Your task to perform on an android device: move a message to another label in the gmail app Image 0: 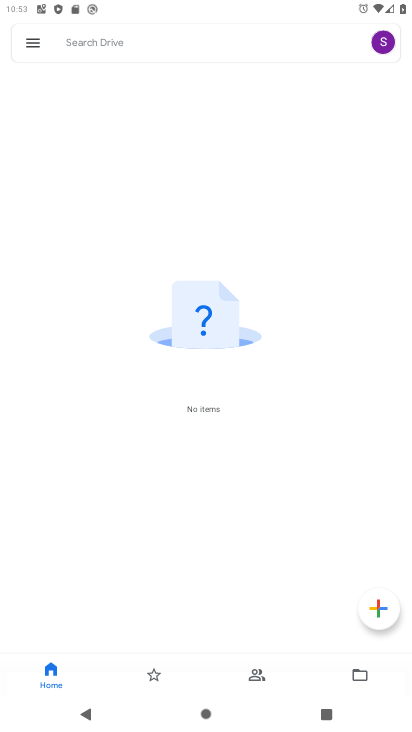
Step 0: press home button
Your task to perform on an android device: move a message to another label in the gmail app Image 1: 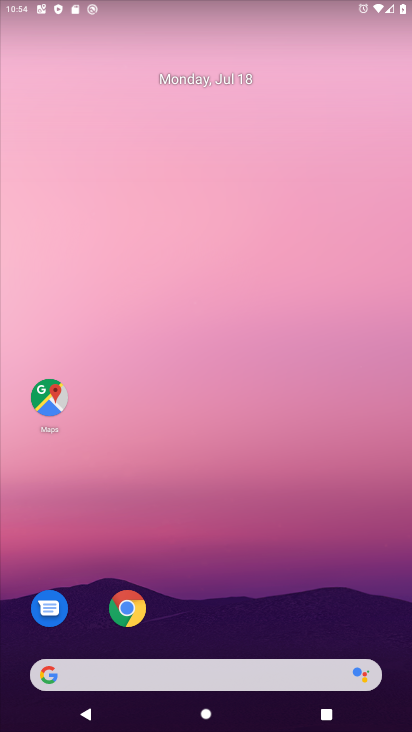
Step 1: drag from (225, 577) to (249, 128)
Your task to perform on an android device: move a message to another label in the gmail app Image 2: 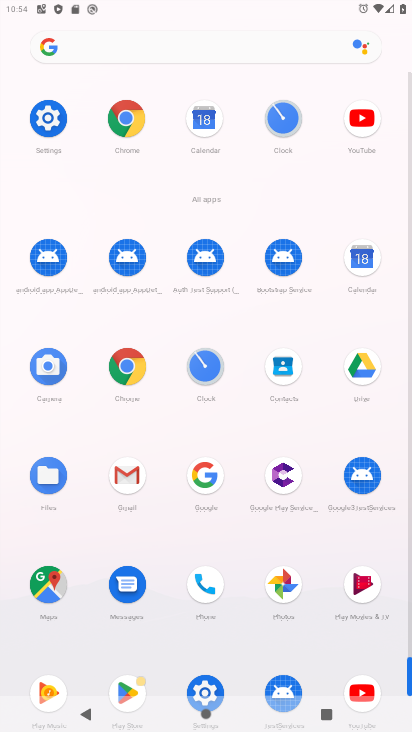
Step 2: click (140, 486)
Your task to perform on an android device: move a message to another label in the gmail app Image 3: 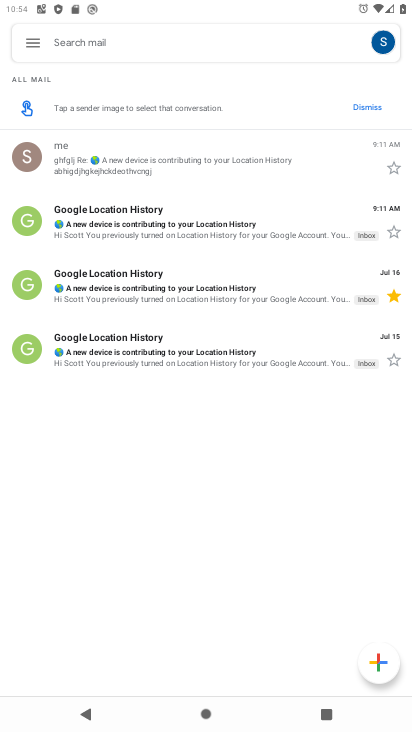
Step 3: click (24, 161)
Your task to perform on an android device: move a message to another label in the gmail app Image 4: 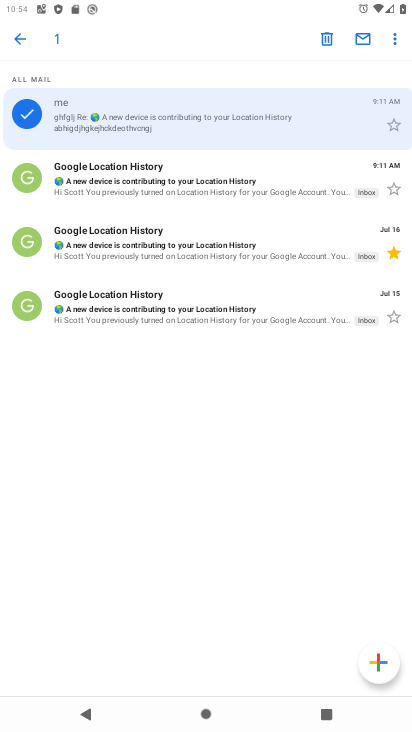
Step 4: click (394, 44)
Your task to perform on an android device: move a message to another label in the gmail app Image 5: 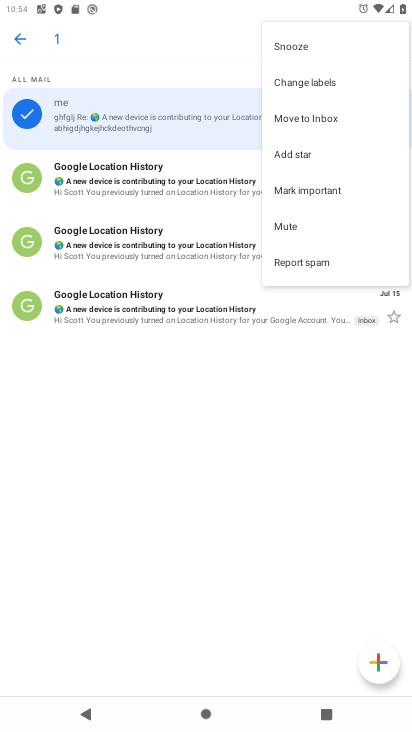
Step 5: click (325, 81)
Your task to perform on an android device: move a message to another label in the gmail app Image 6: 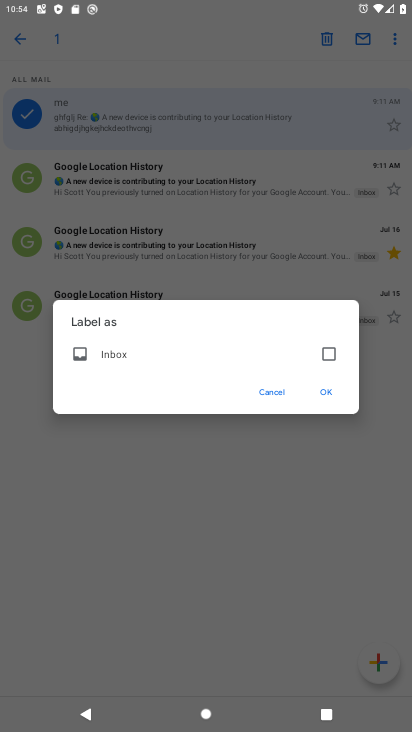
Step 6: click (323, 353)
Your task to perform on an android device: move a message to another label in the gmail app Image 7: 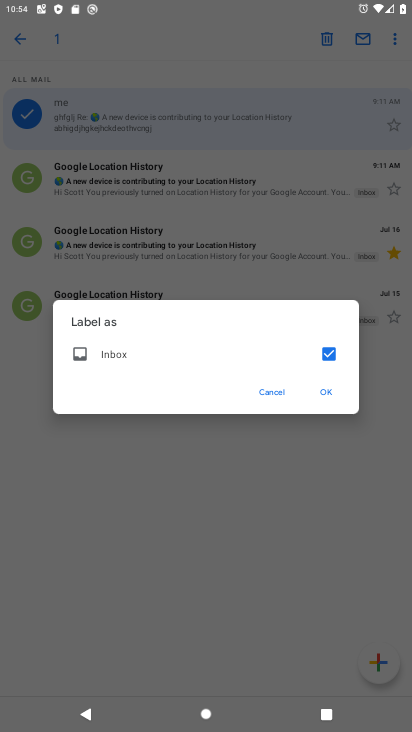
Step 7: click (324, 394)
Your task to perform on an android device: move a message to another label in the gmail app Image 8: 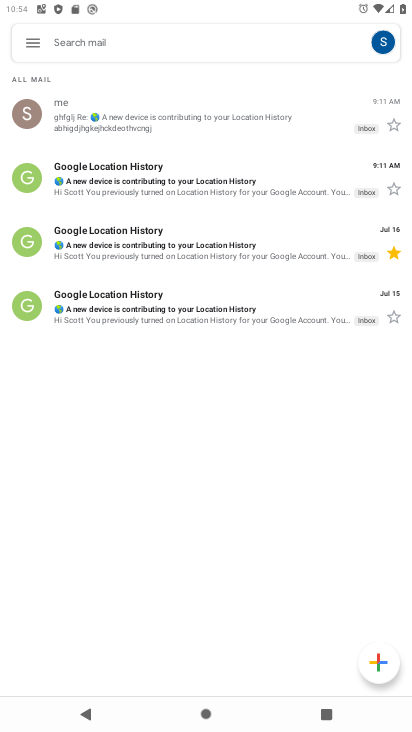
Step 8: task complete